Your task to perform on an android device: toggle notifications settings in the gmail app Image 0: 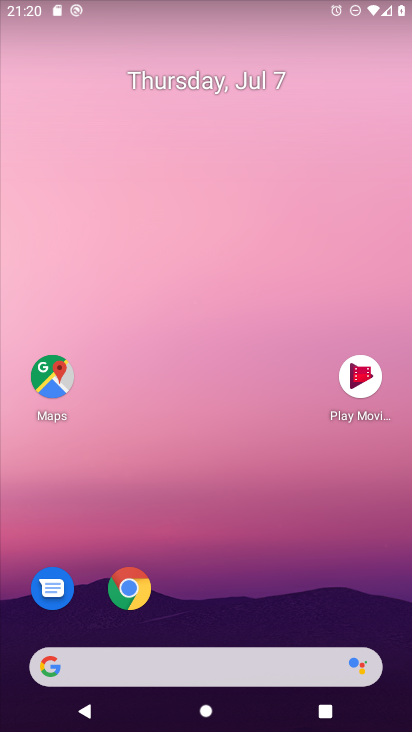
Step 0: drag from (211, 635) to (216, 216)
Your task to perform on an android device: toggle notifications settings in the gmail app Image 1: 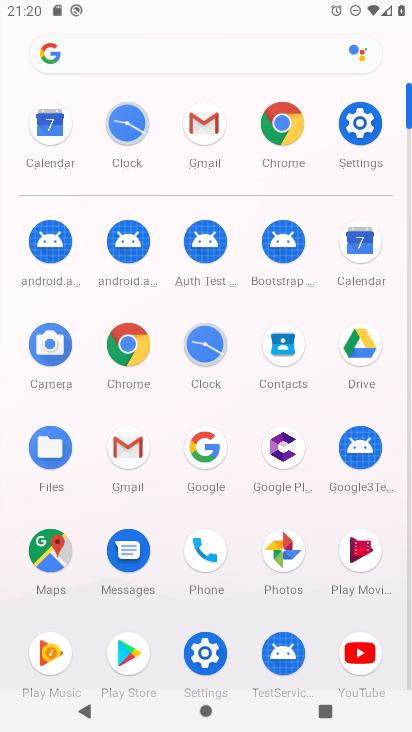
Step 1: click (195, 111)
Your task to perform on an android device: toggle notifications settings in the gmail app Image 2: 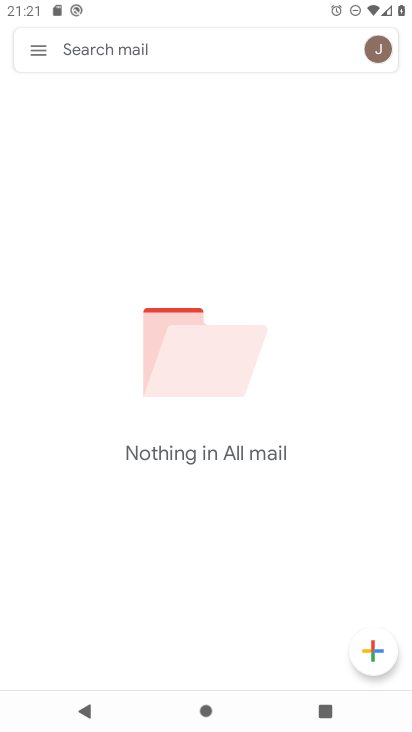
Step 2: click (50, 39)
Your task to perform on an android device: toggle notifications settings in the gmail app Image 3: 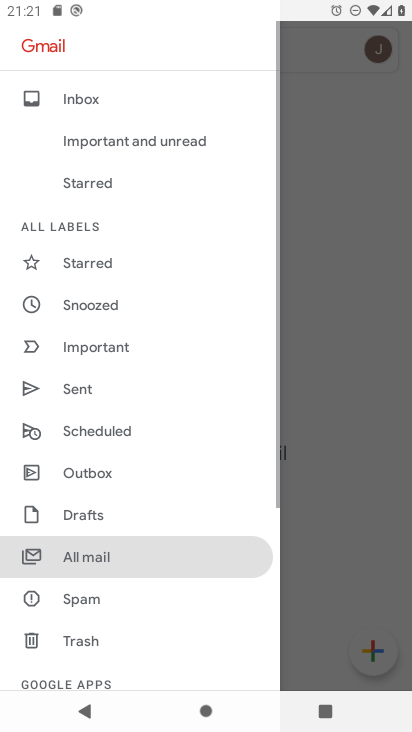
Step 3: drag from (137, 624) to (190, 228)
Your task to perform on an android device: toggle notifications settings in the gmail app Image 4: 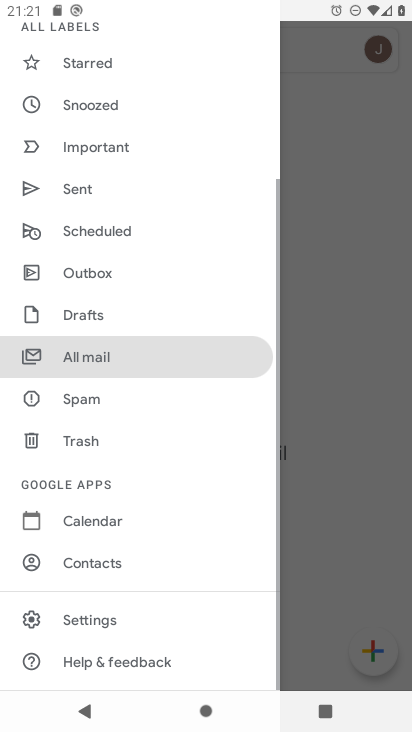
Step 4: click (107, 618)
Your task to perform on an android device: toggle notifications settings in the gmail app Image 5: 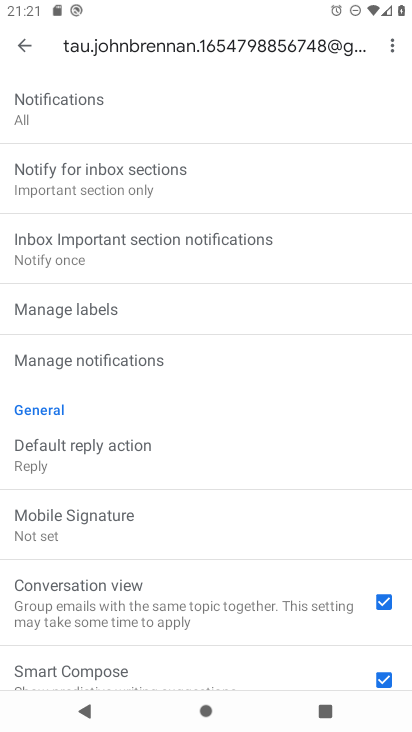
Step 5: drag from (208, 541) to (208, 267)
Your task to perform on an android device: toggle notifications settings in the gmail app Image 6: 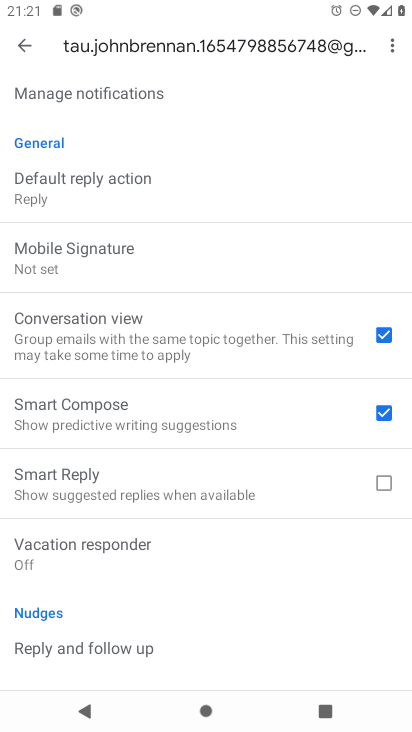
Step 6: drag from (206, 165) to (217, 563)
Your task to perform on an android device: toggle notifications settings in the gmail app Image 7: 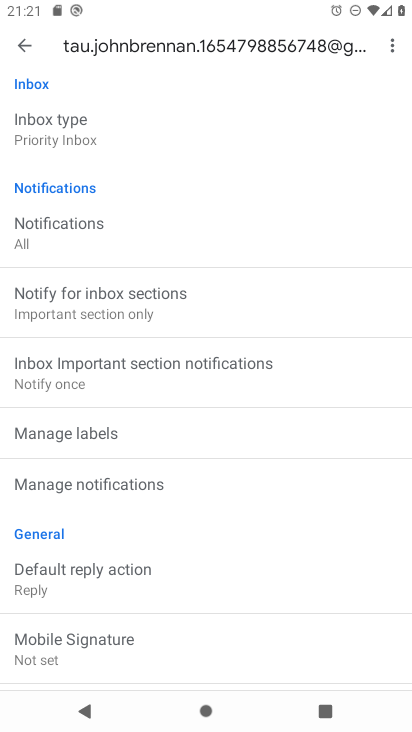
Step 7: click (113, 234)
Your task to perform on an android device: toggle notifications settings in the gmail app Image 8: 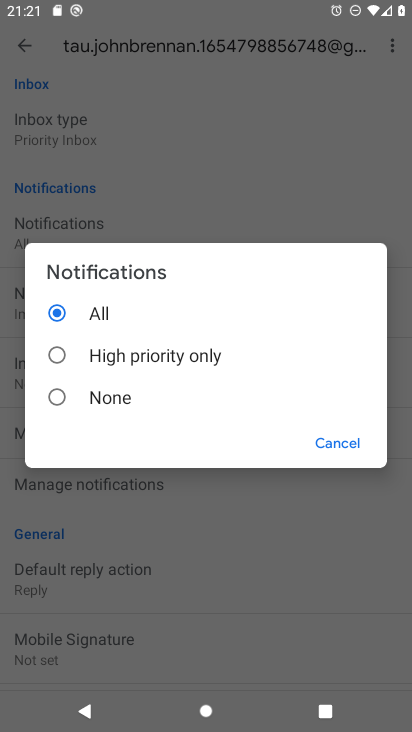
Step 8: click (92, 400)
Your task to perform on an android device: toggle notifications settings in the gmail app Image 9: 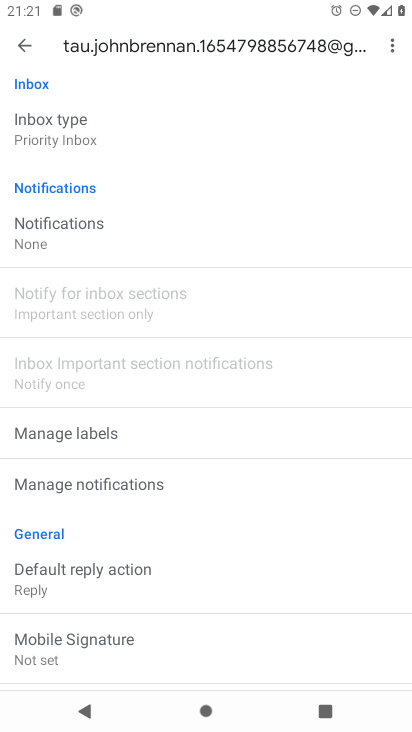
Step 9: task complete